Your task to perform on an android device: open a bookmark in the chrome app Image 0: 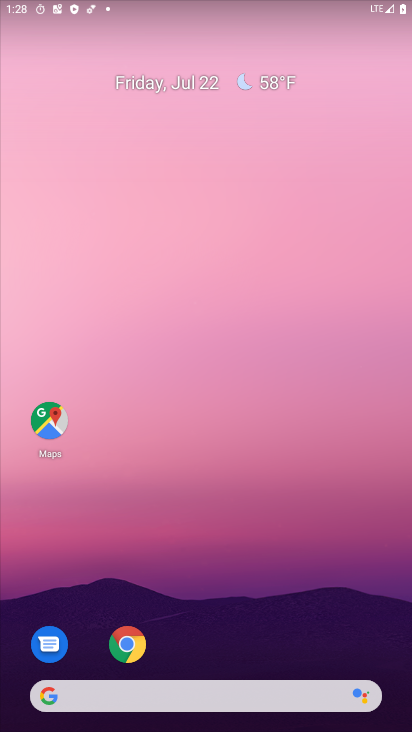
Step 0: drag from (183, 648) to (48, 404)
Your task to perform on an android device: open a bookmark in the chrome app Image 1: 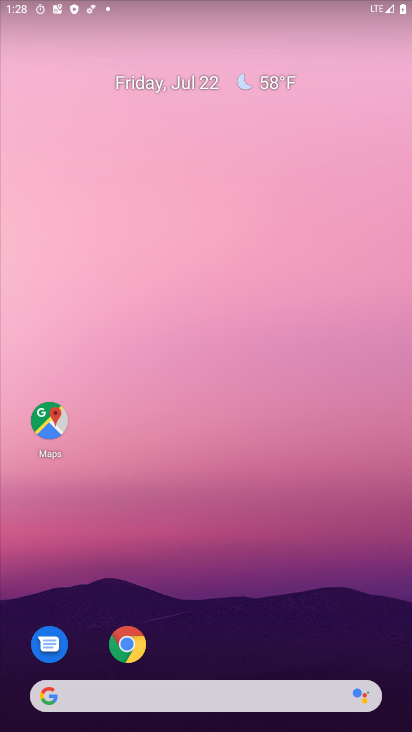
Step 1: click (122, 647)
Your task to perform on an android device: open a bookmark in the chrome app Image 2: 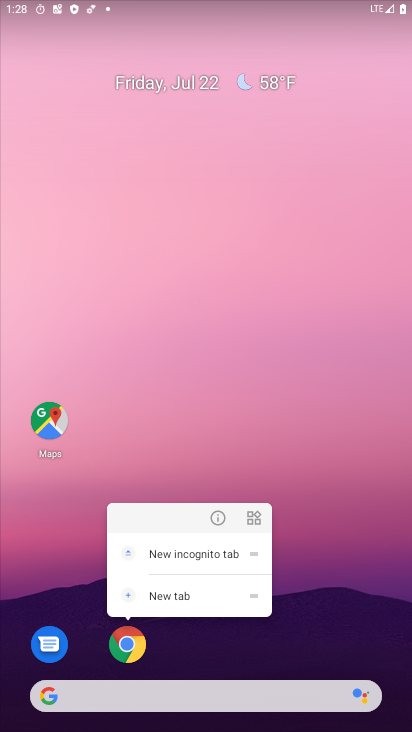
Step 2: click (220, 515)
Your task to perform on an android device: open a bookmark in the chrome app Image 3: 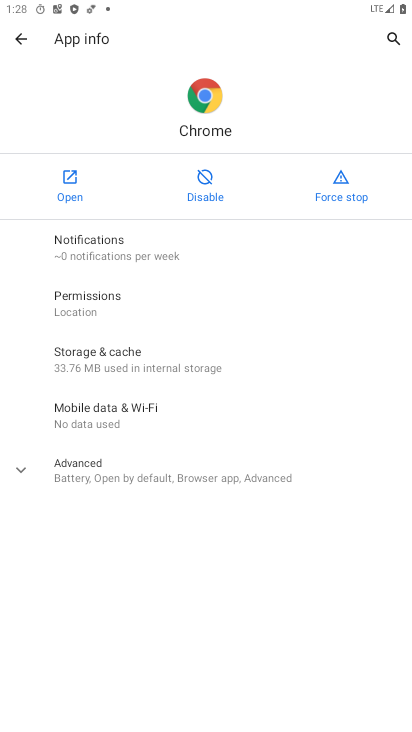
Step 3: click (68, 177)
Your task to perform on an android device: open a bookmark in the chrome app Image 4: 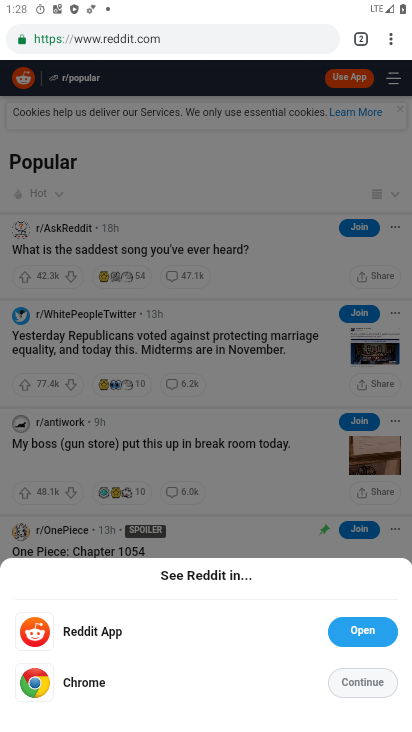
Step 4: task complete